Your task to perform on an android device: Go to Maps Image 0: 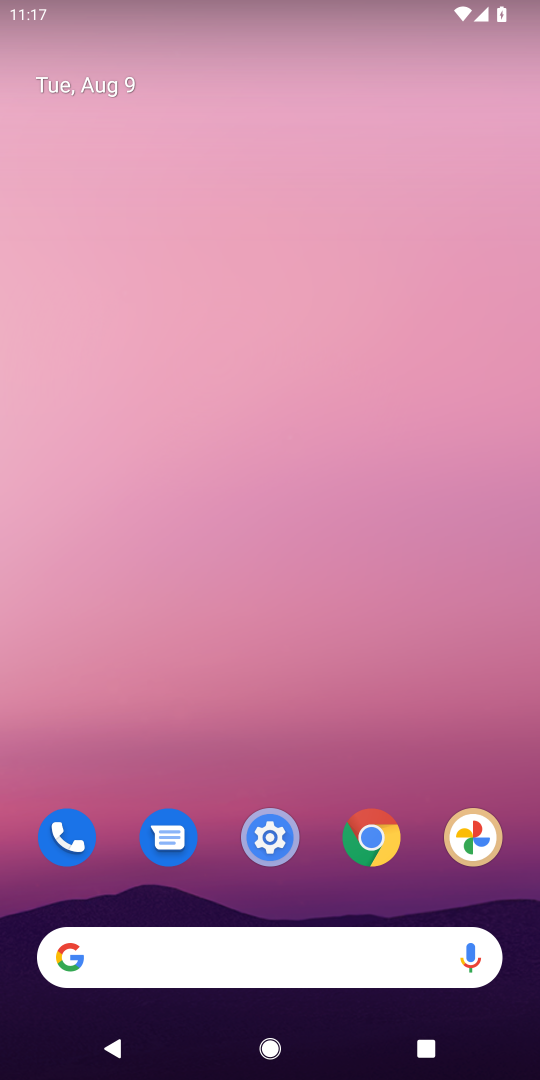
Step 0: drag from (298, 897) to (322, 30)
Your task to perform on an android device: Go to Maps Image 1: 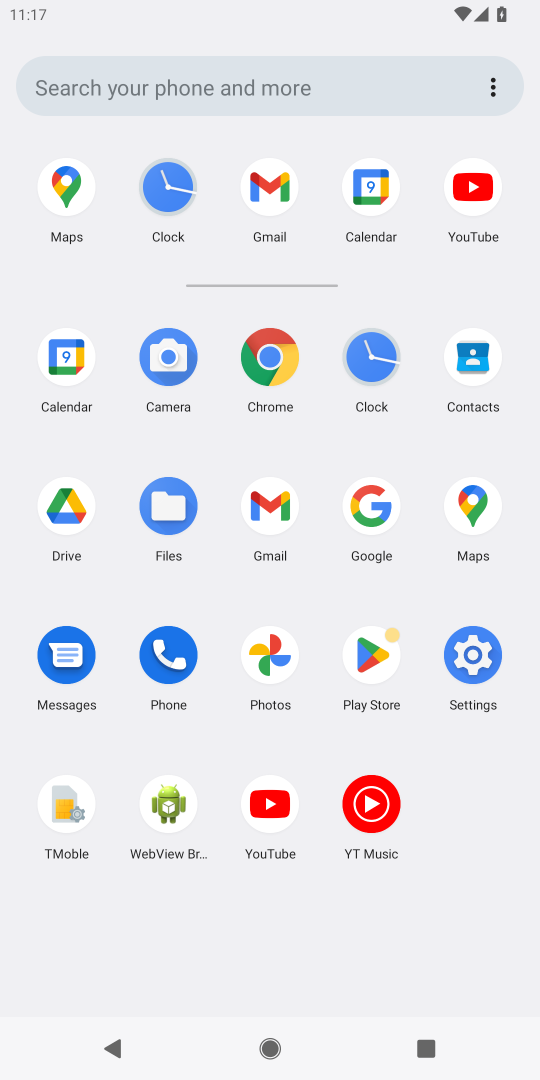
Step 1: click (478, 508)
Your task to perform on an android device: Go to Maps Image 2: 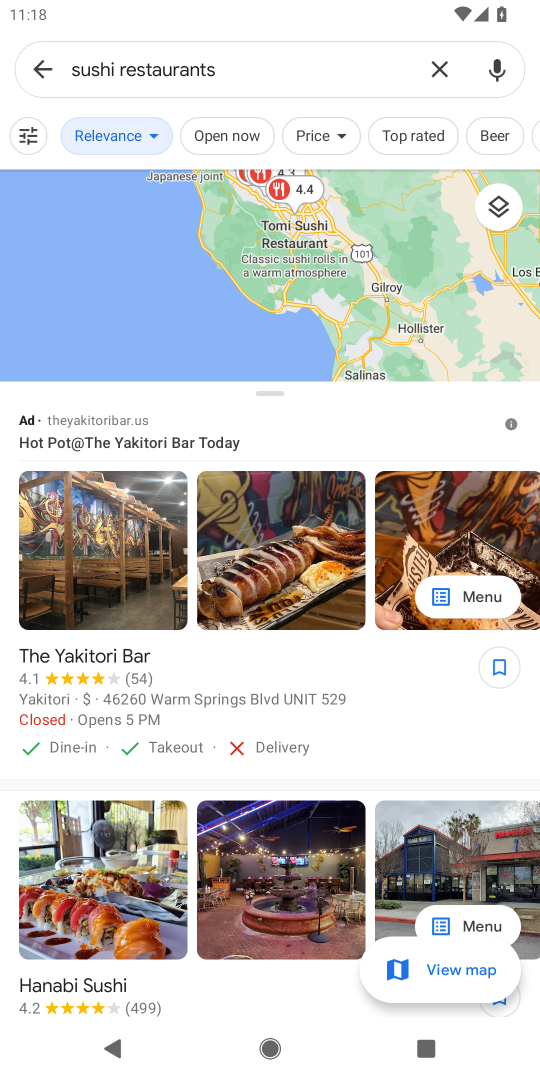
Step 2: task complete